Your task to perform on an android device: Open Chrome and go to the settings page Image 0: 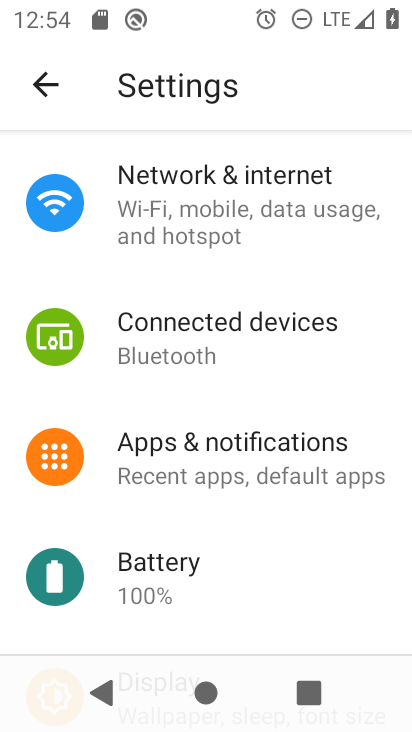
Step 0: press home button
Your task to perform on an android device: Open Chrome and go to the settings page Image 1: 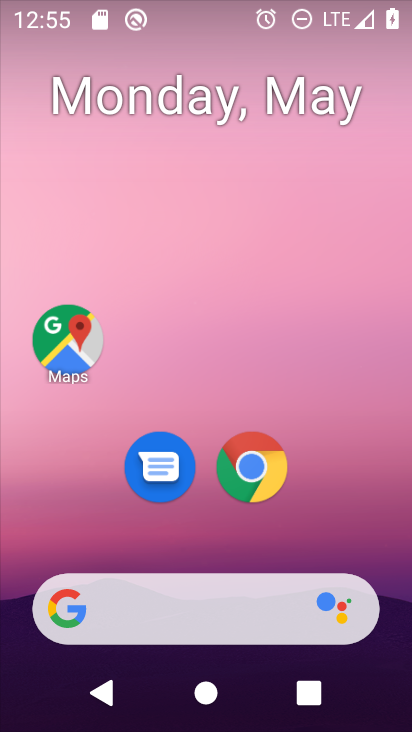
Step 1: click (258, 467)
Your task to perform on an android device: Open Chrome and go to the settings page Image 2: 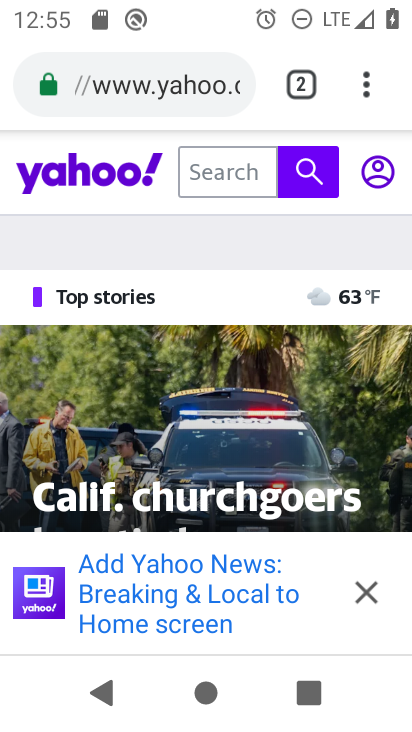
Step 2: click (367, 90)
Your task to perform on an android device: Open Chrome and go to the settings page Image 3: 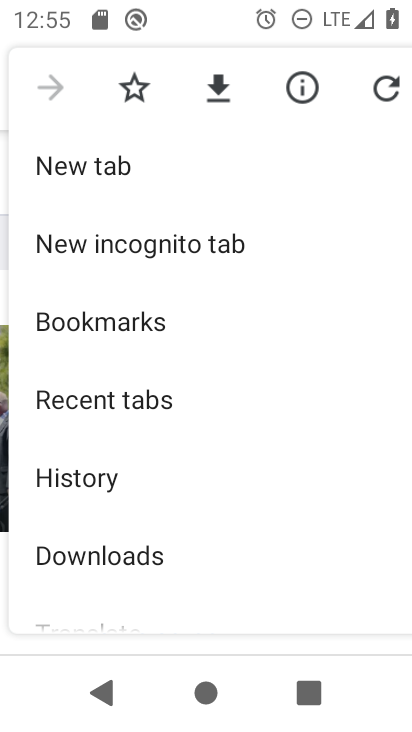
Step 3: drag from (237, 500) to (280, 144)
Your task to perform on an android device: Open Chrome and go to the settings page Image 4: 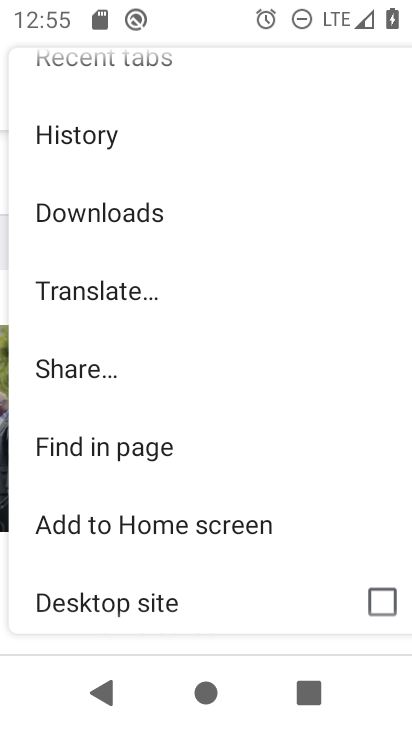
Step 4: drag from (206, 554) to (269, 159)
Your task to perform on an android device: Open Chrome and go to the settings page Image 5: 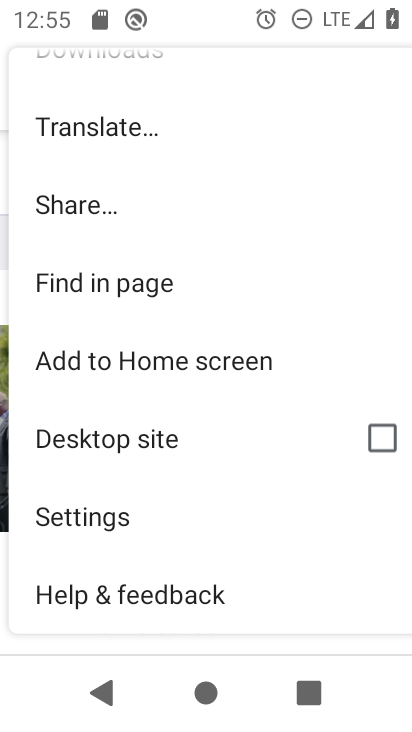
Step 5: click (96, 518)
Your task to perform on an android device: Open Chrome and go to the settings page Image 6: 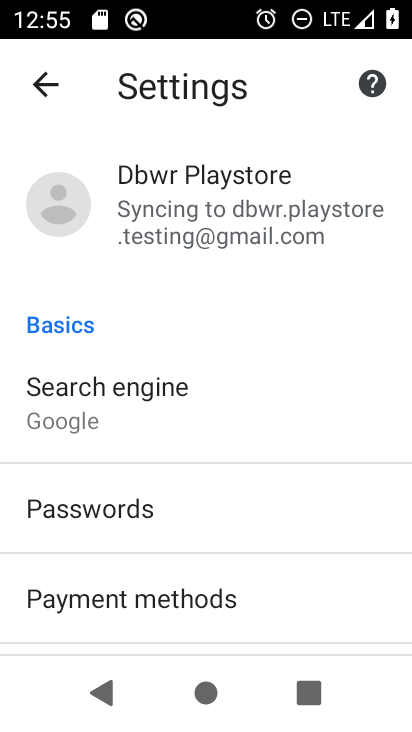
Step 6: task complete